Your task to perform on an android device: turn off airplane mode Image 0: 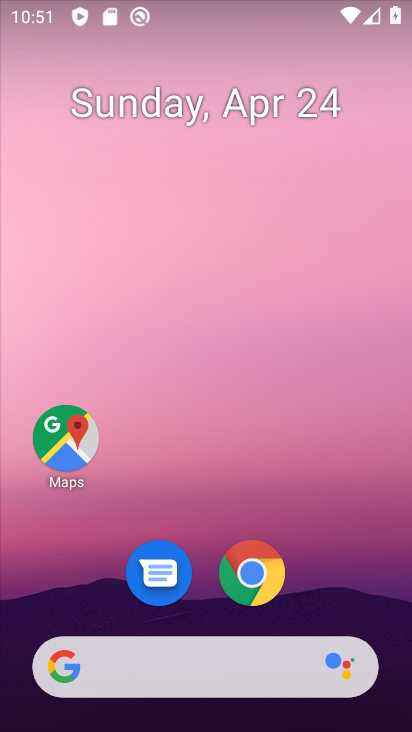
Step 0: drag from (219, 708) to (219, 40)
Your task to perform on an android device: turn off airplane mode Image 1: 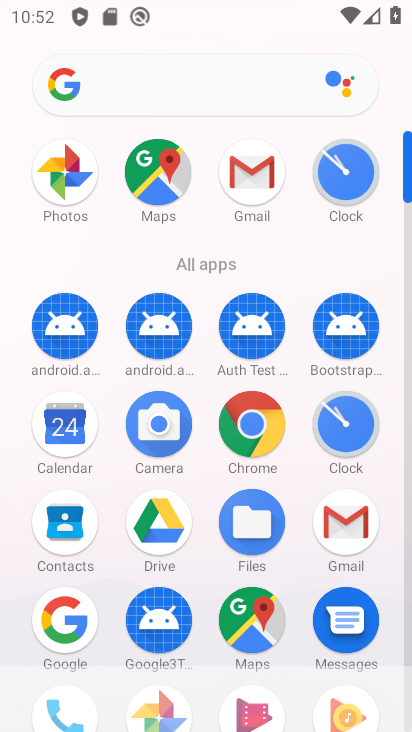
Step 1: drag from (202, 669) to (202, 172)
Your task to perform on an android device: turn off airplane mode Image 2: 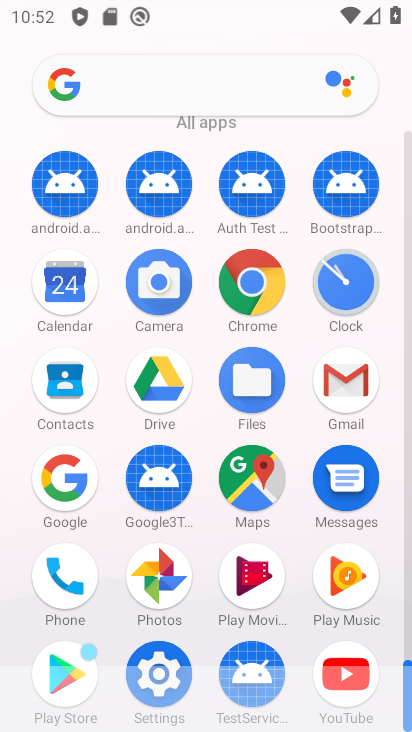
Step 2: click (160, 662)
Your task to perform on an android device: turn off airplane mode Image 3: 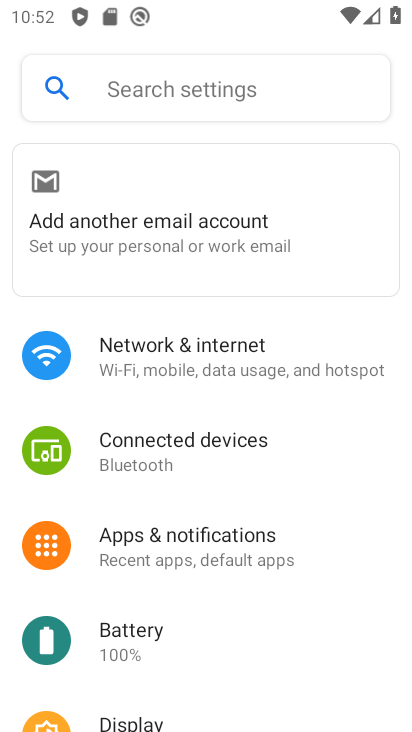
Step 3: click (183, 362)
Your task to perform on an android device: turn off airplane mode Image 4: 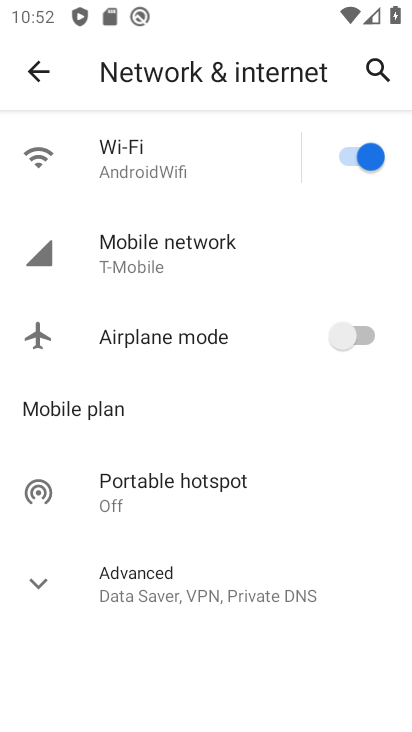
Step 4: task complete